Your task to perform on an android device: Open Google Chrome Image 0: 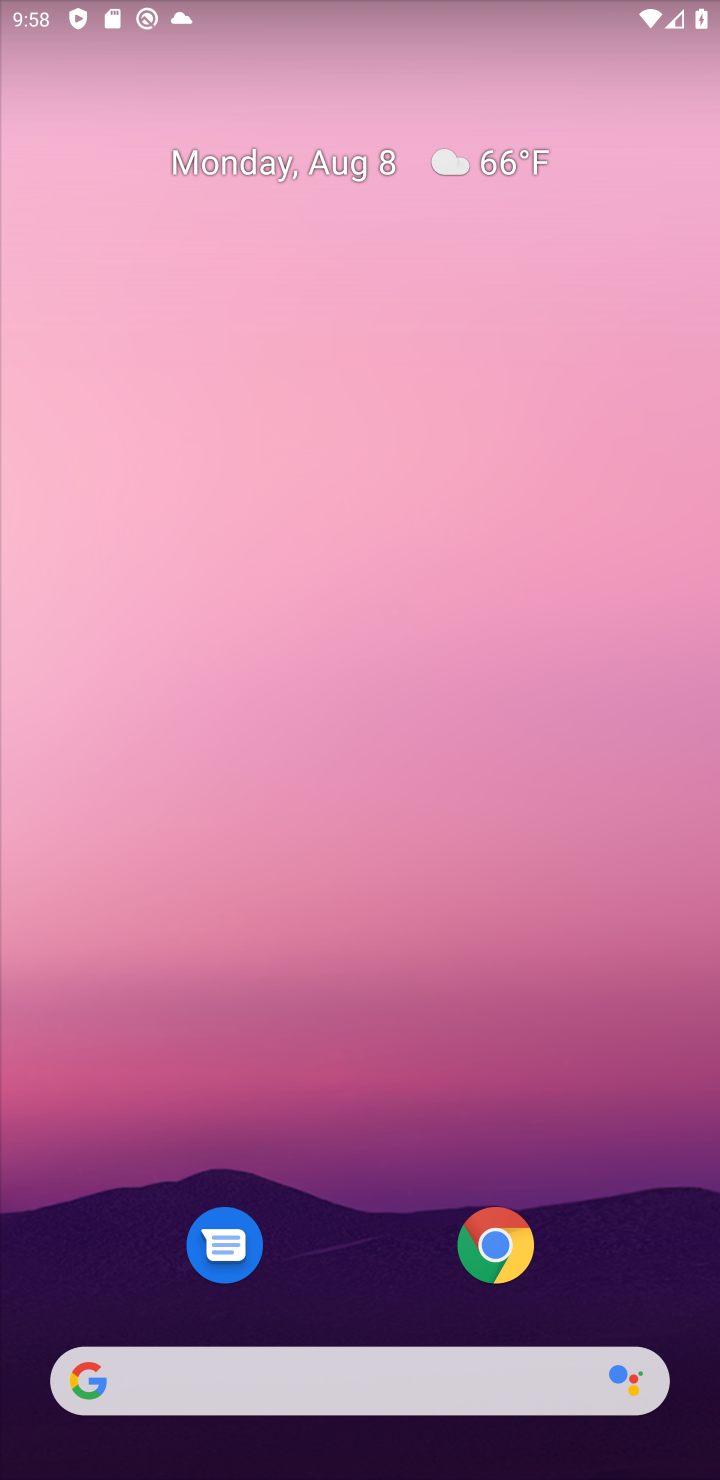
Step 0: click (498, 1253)
Your task to perform on an android device: Open Google Chrome Image 1: 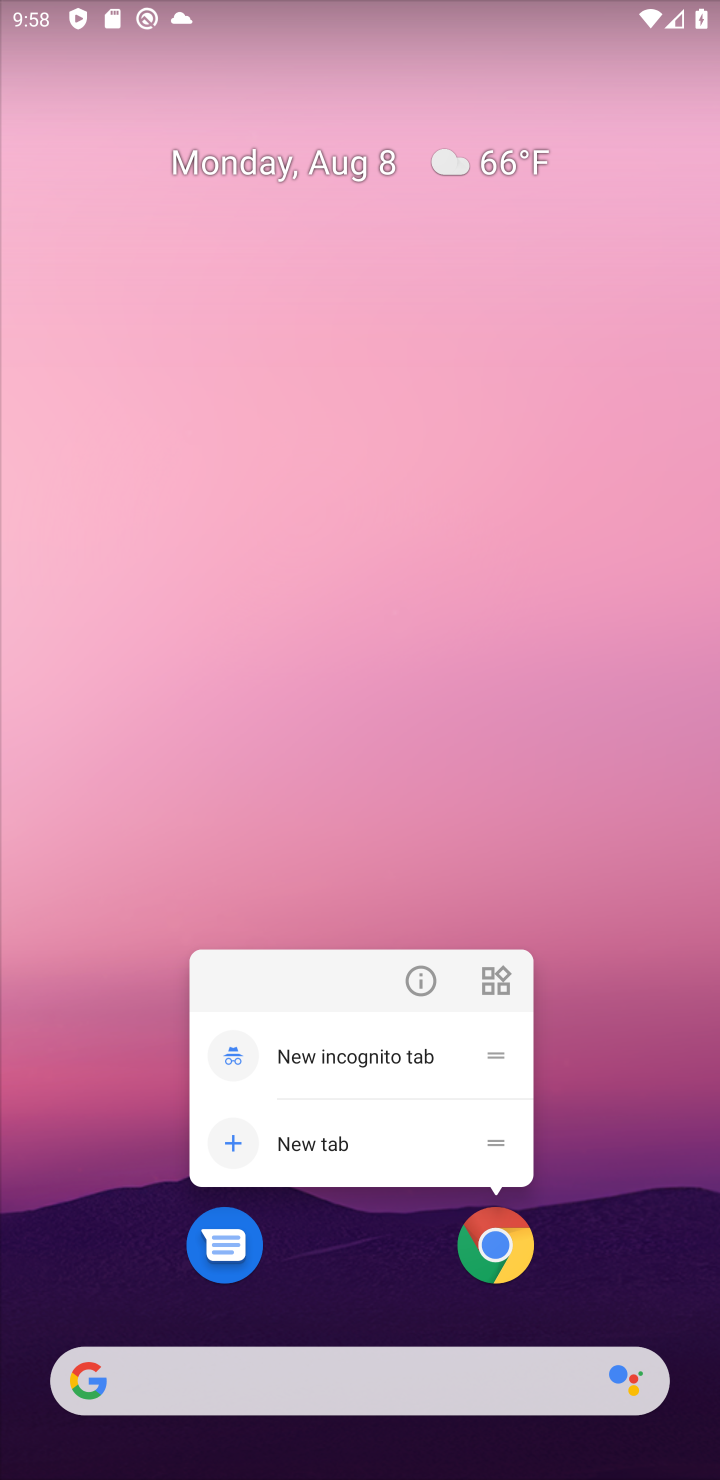
Step 1: click (498, 1253)
Your task to perform on an android device: Open Google Chrome Image 2: 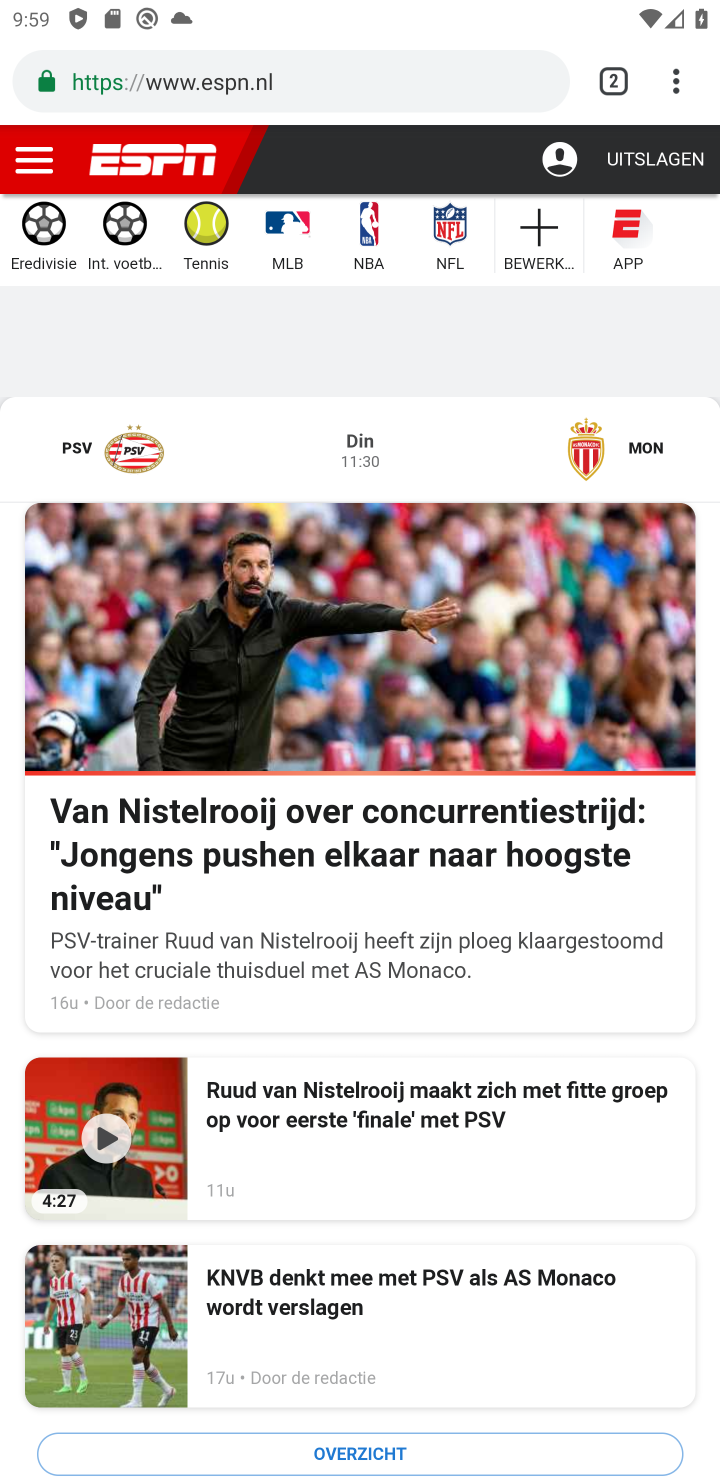
Step 2: task complete